Your task to perform on an android device: Open Google Chrome Image 0: 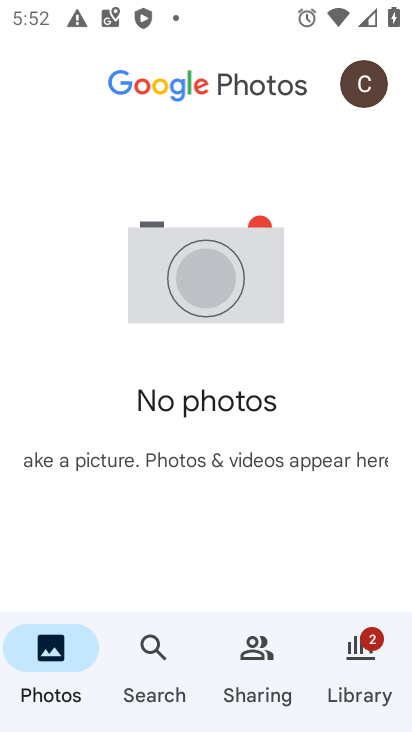
Step 0: press home button
Your task to perform on an android device: Open Google Chrome Image 1: 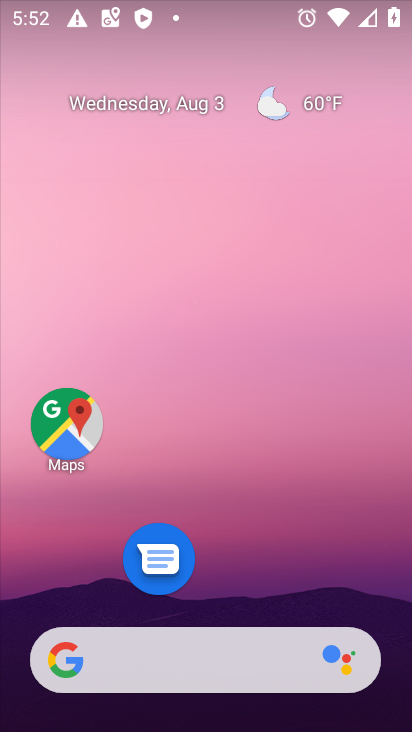
Step 1: drag from (230, 627) to (230, 333)
Your task to perform on an android device: Open Google Chrome Image 2: 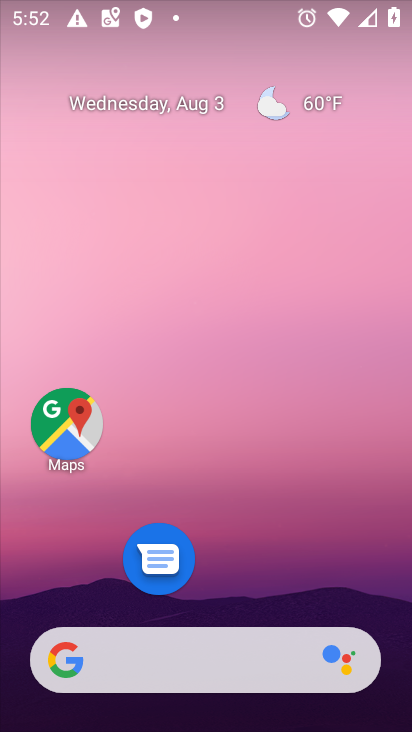
Step 2: drag from (177, 663) to (184, 136)
Your task to perform on an android device: Open Google Chrome Image 3: 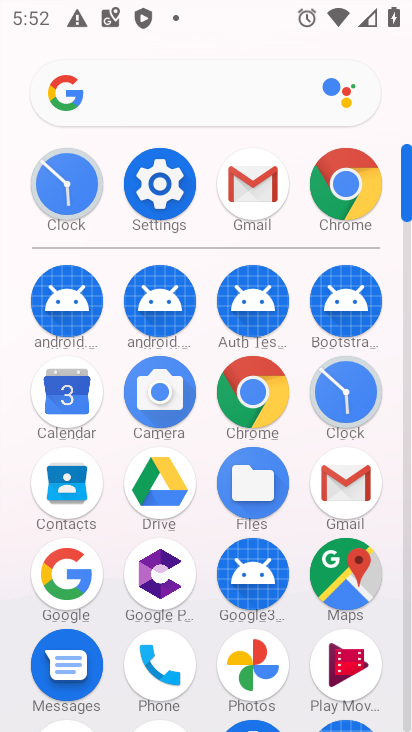
Step 3: click (354, 176)
Your task to perform on an android device: Open Google Chrome Image 4: 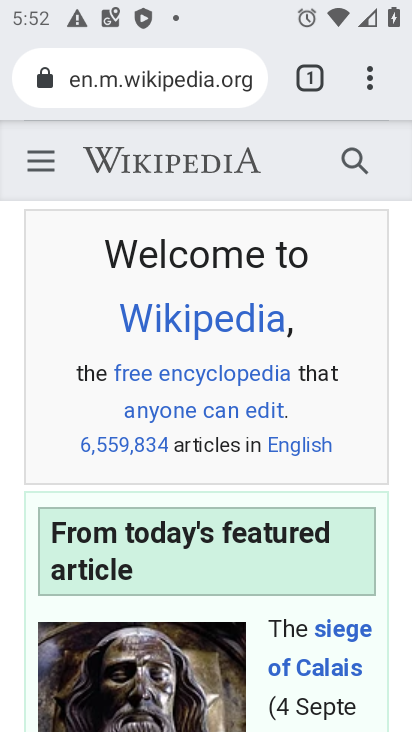
Step 4: click (314, 78)
Your task to perform on an android device: Open Google Chrome Image 5: 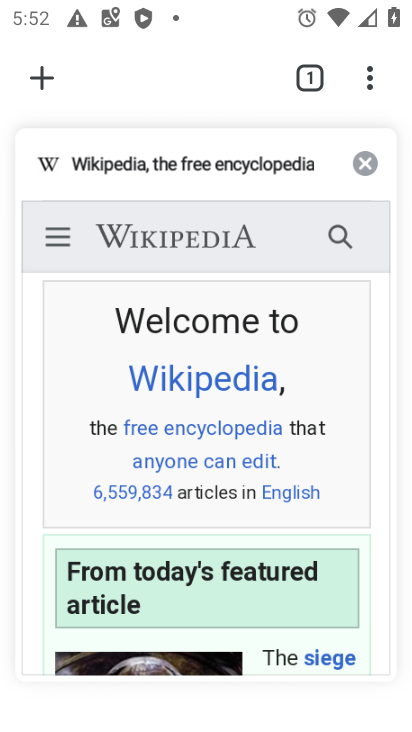
Step 5: task complete